Your task to perform on an android device: Show me popular videos on Youtube Image 0: 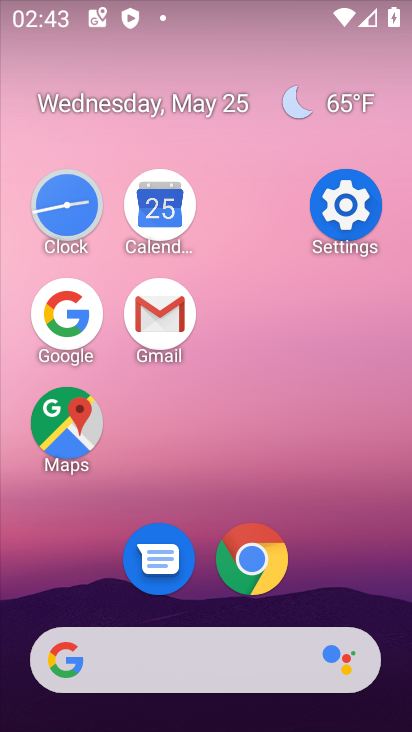
Step 0: drag from (344, 583) to (328, 203)
Your task to perform on an android device: Show me popular videos on Youtube Image 1: 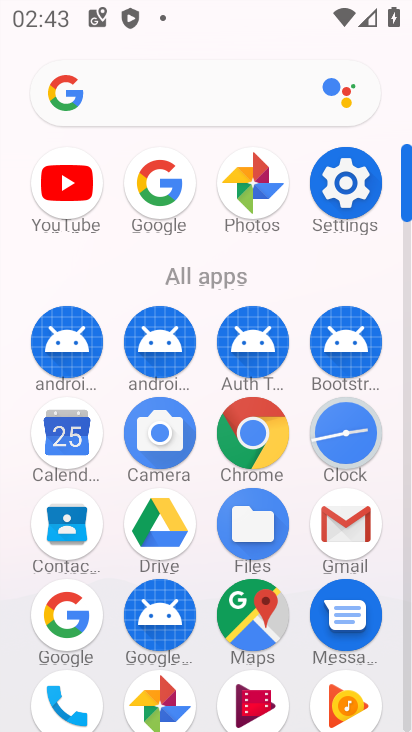
Step 1: click (74, 189)
Your task to perform on an android device: Show me popular videos on Youtube Image 2: 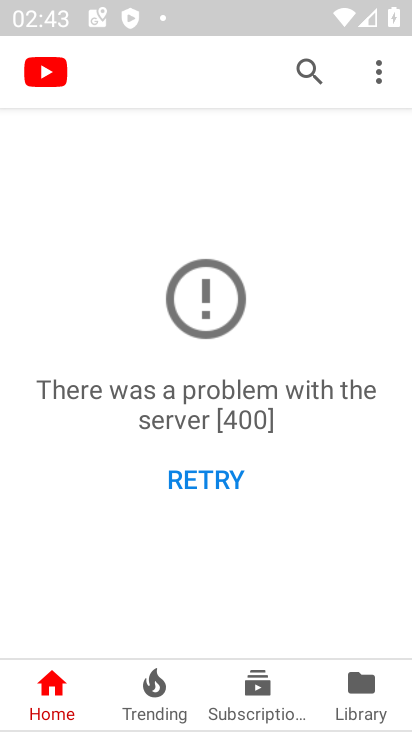
Step 2: task complete